Your task to perform on an android device: Open Youtube and go to "Your channel" Image 0: 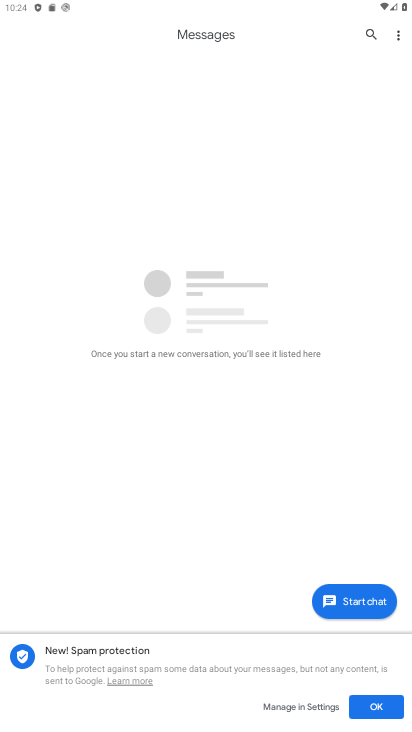
Step 0: press home button
Your task to perform on an android device: Open Youtube and go to "Your channel" Image 1: 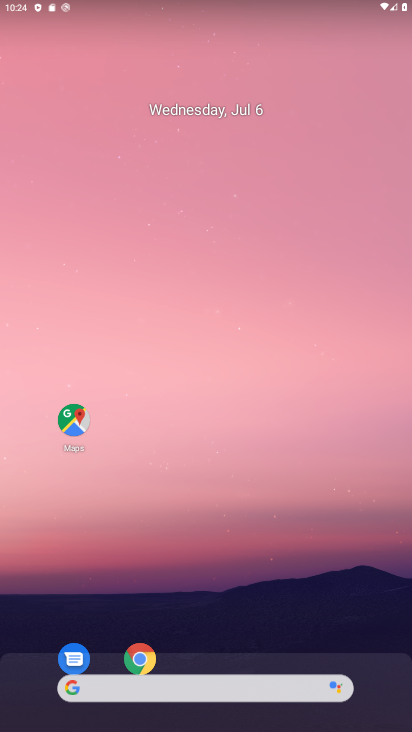
Step 1: drag from (219, 648) to (249, 110)
Your task to perform on an android device: Open Youtube and go to "Your channel" Image 2: 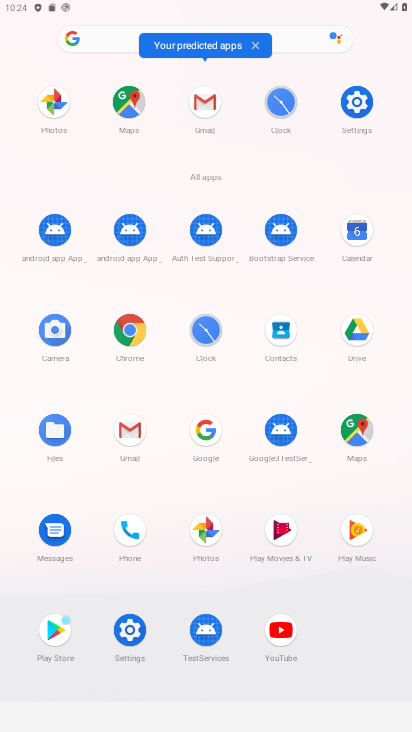
Step 2: click (283, 627)
Your task to perform on an android device: Open Youtube and go to "Your channel" Image 3: 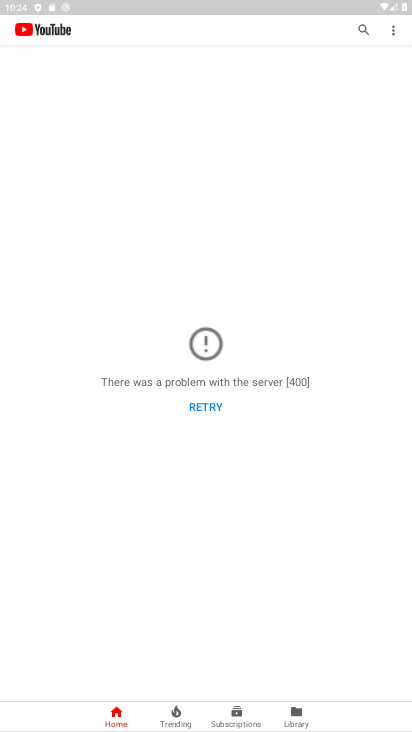
Step 3: task complete